Your task to perform on an android device: visit the assistant section in the google photos Image 0: 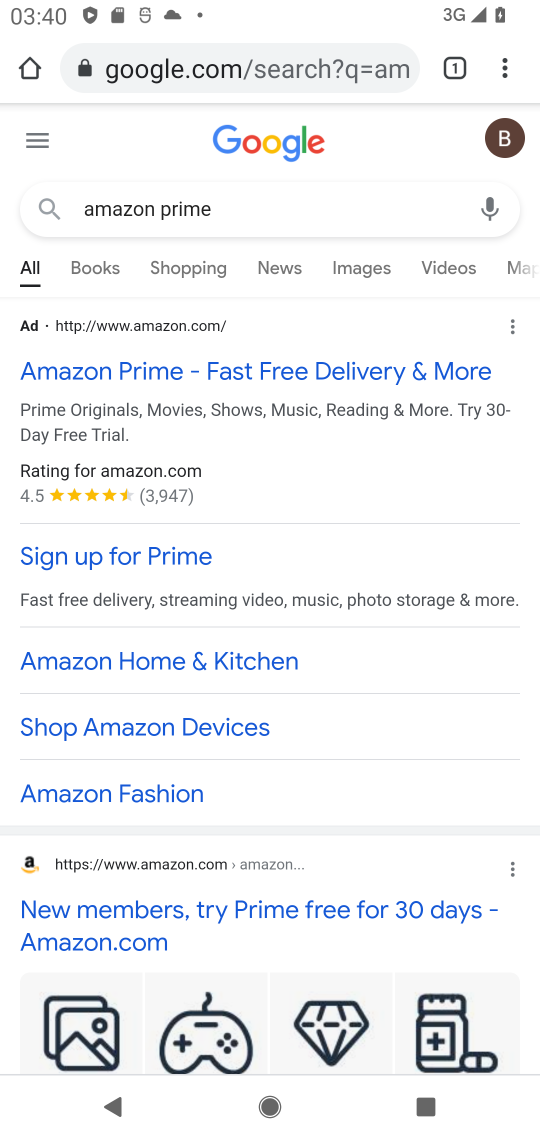
Step 0: press home button
Your task to perform on an android device: visit the assistant section in the google photos Image 1: 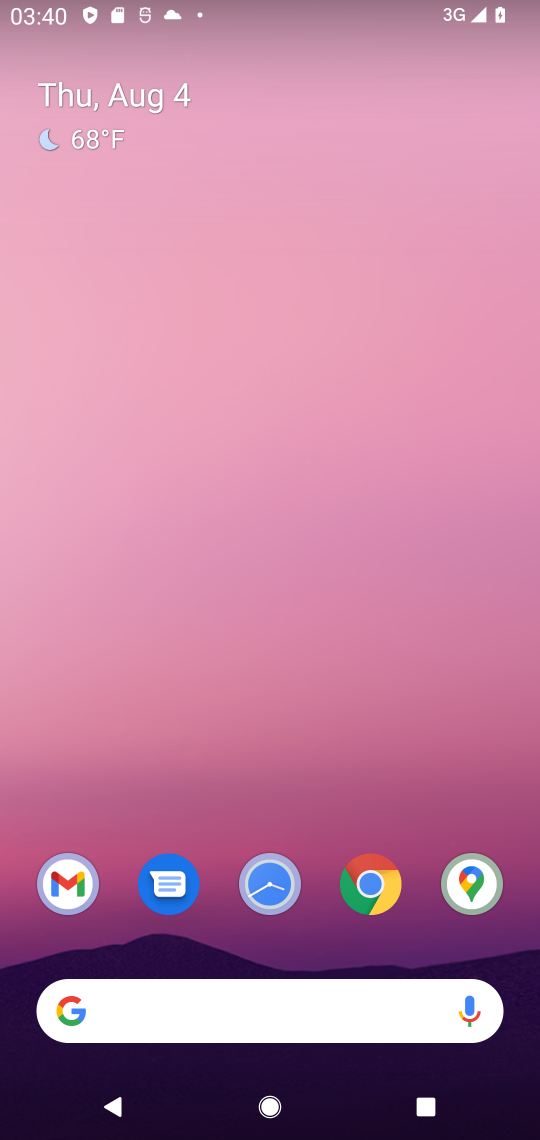
Step 1: drag from (313, 794) to (364, 230)
Your task to perform on an android device: visit the assistant section in the google photos Image 2: 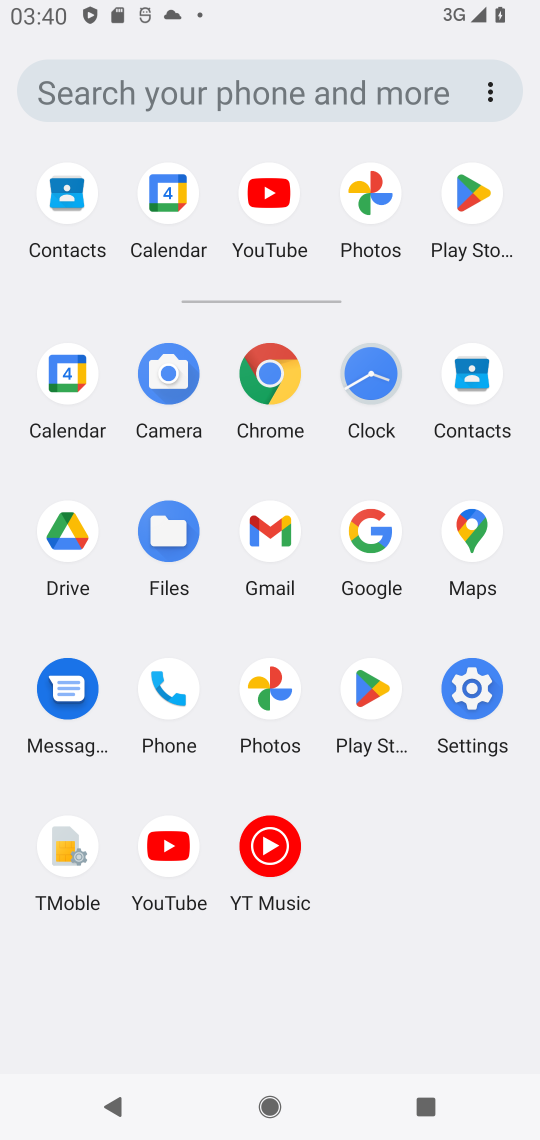
Step 2: click (272, 709)
Your task to perform on an android device: visit the assistant section in the google photos Image 3: 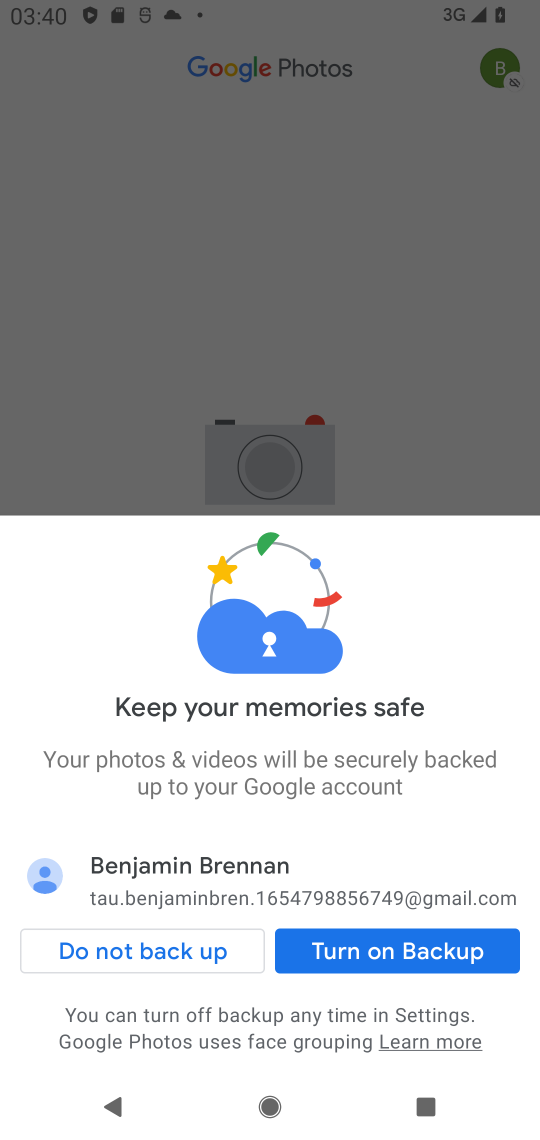
Step 3: click (161, 956)
Your task to perform on an android device: visit the assistant section in the google photos Image 4: 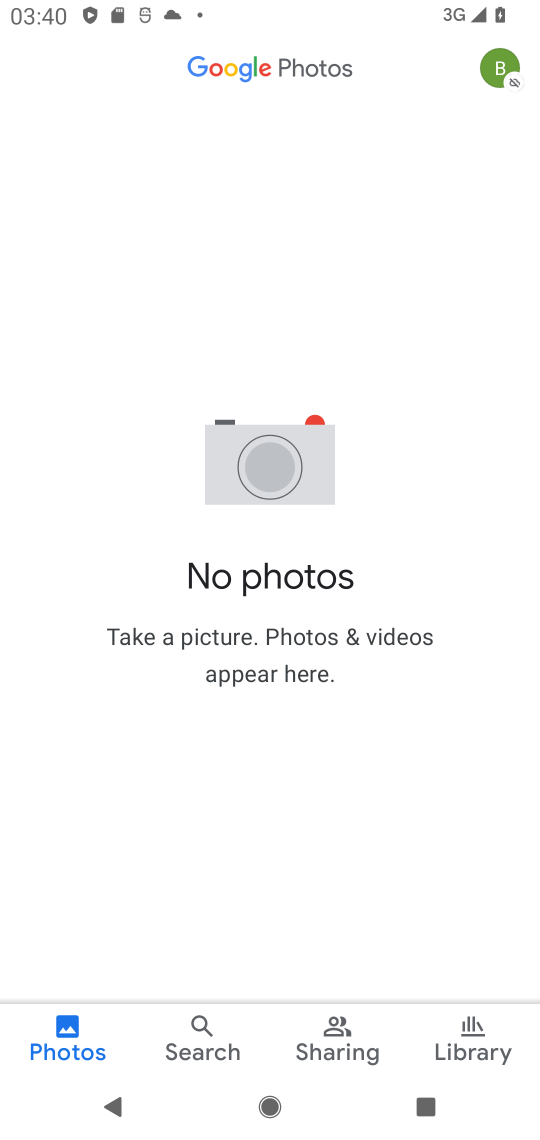
Step 4: click (164, 952)
Your task to perform on an android device: visit the assistant section in the google photos Image 5: 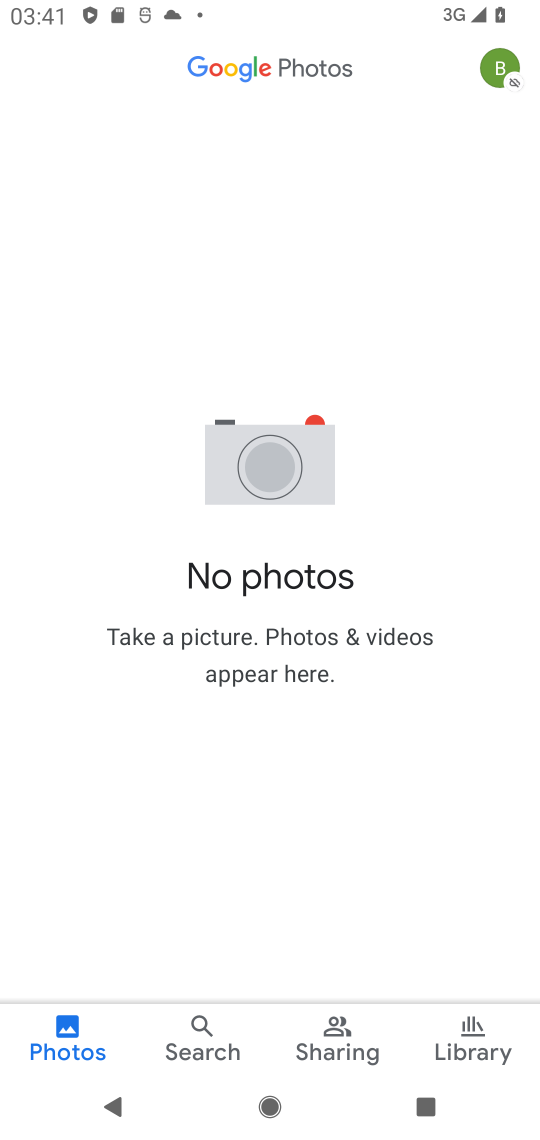
Step 5: task complete